Your task to perform on an android device: Go to CNN.com Image 0: 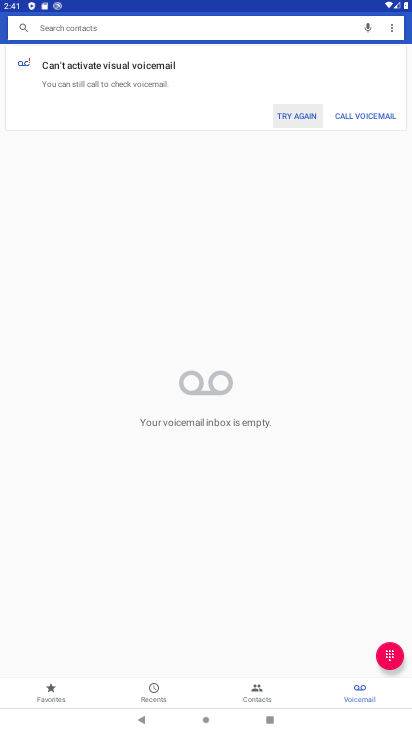
Step 0: press home button
Your task to perform on an android device: Go to CNN.com Image 1: 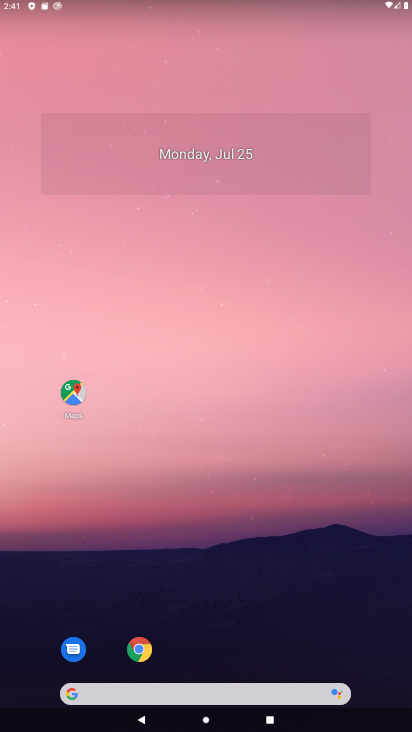
Step 1: click (116, 695)
Your task to perform on an android device: Go to CNN.com Image 2: 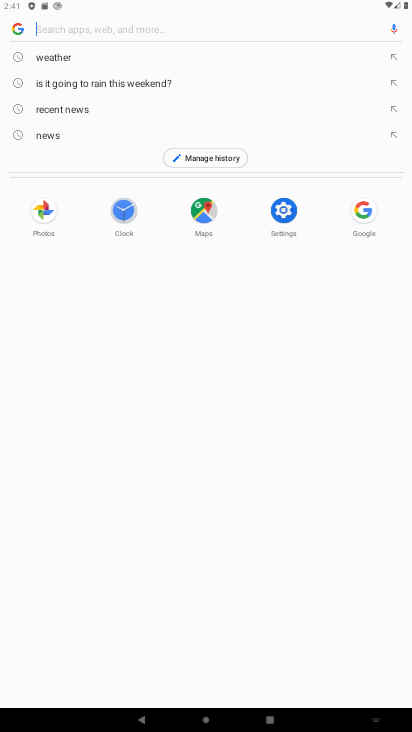
Step 2: click (216, 31)
Your task to perform on an android device: Go to CNN.com Image 3: 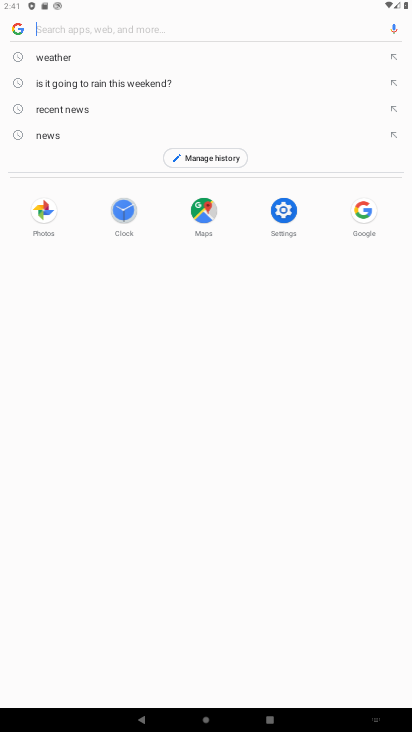
Step 3: type "cnn.com"
Your task to perform on an android device: Go to CNN.com Image 4: 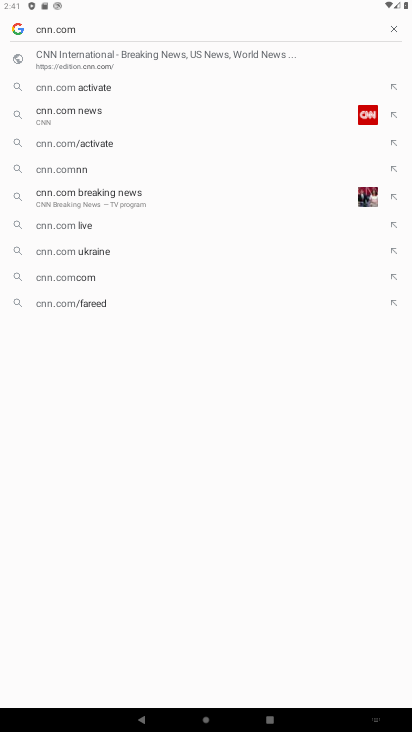
Step 4: click (110, 51)
Your task to perform on an android device: Go to CNN.com Image 5: 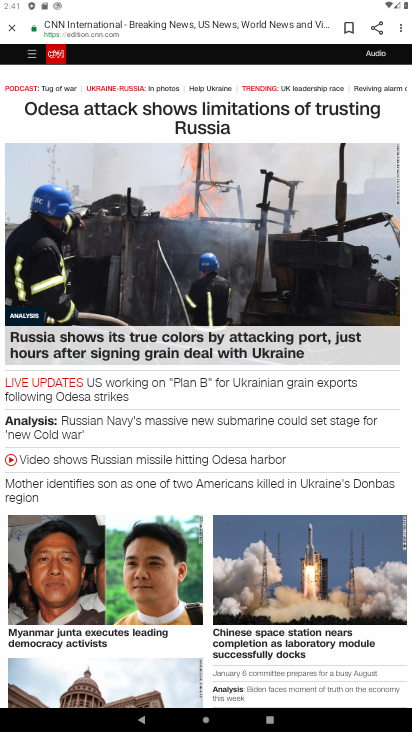
Step 5: task complete